Your task to perform on an android device: Search for acer predator on ebay, select the first entry, and add it to the cart. Image 0: 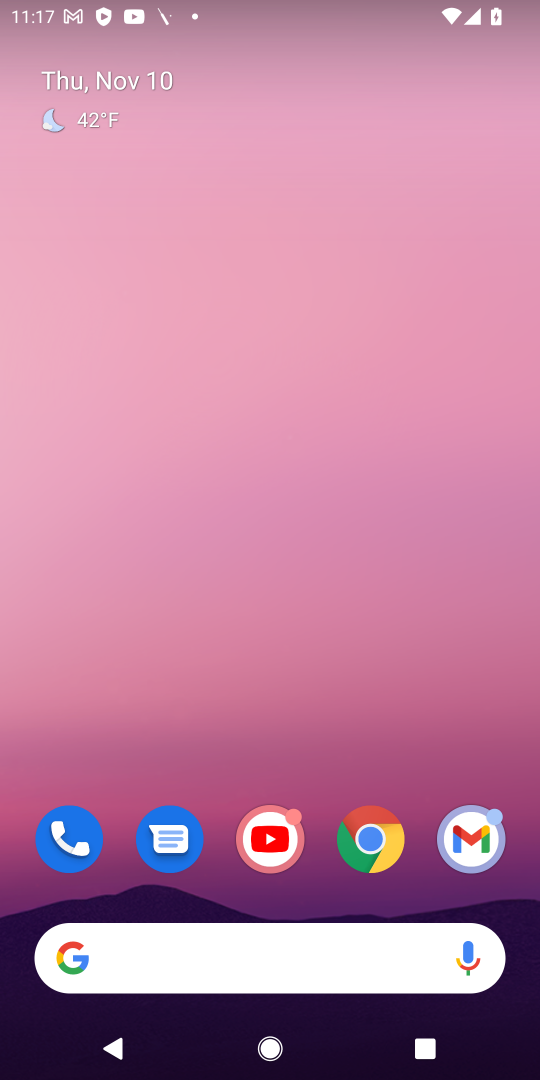
Step 0: click (377, 832)
Your task to perform on an android device: Search for acer predator on ebay, select the first entry, and add it to the cart. Image 1: 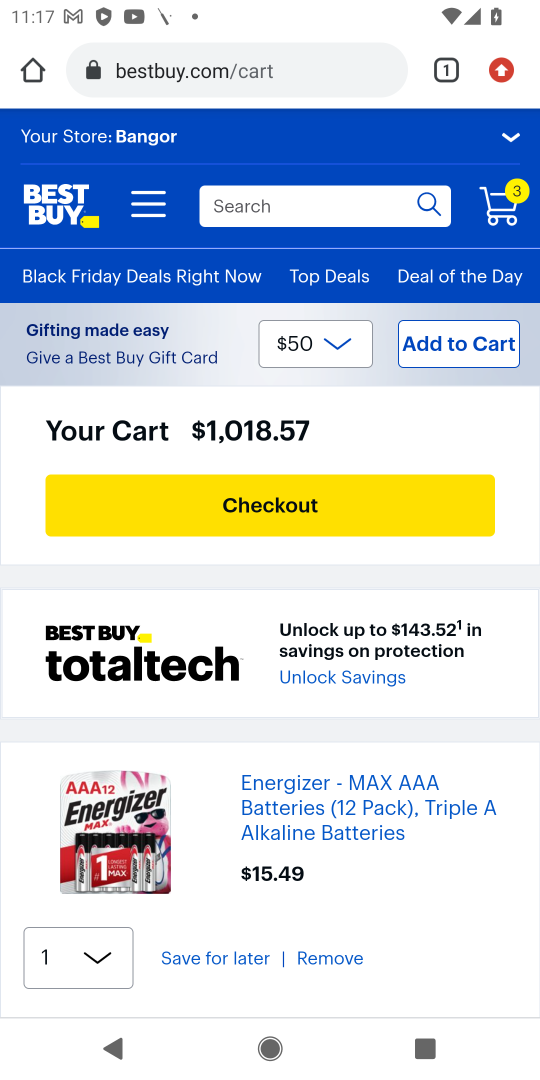
Step 1: click (293, 77)
Your task to perform on an android device: Search for acer predator on ebay, select the first entry, and add it to the cart. Image 2: 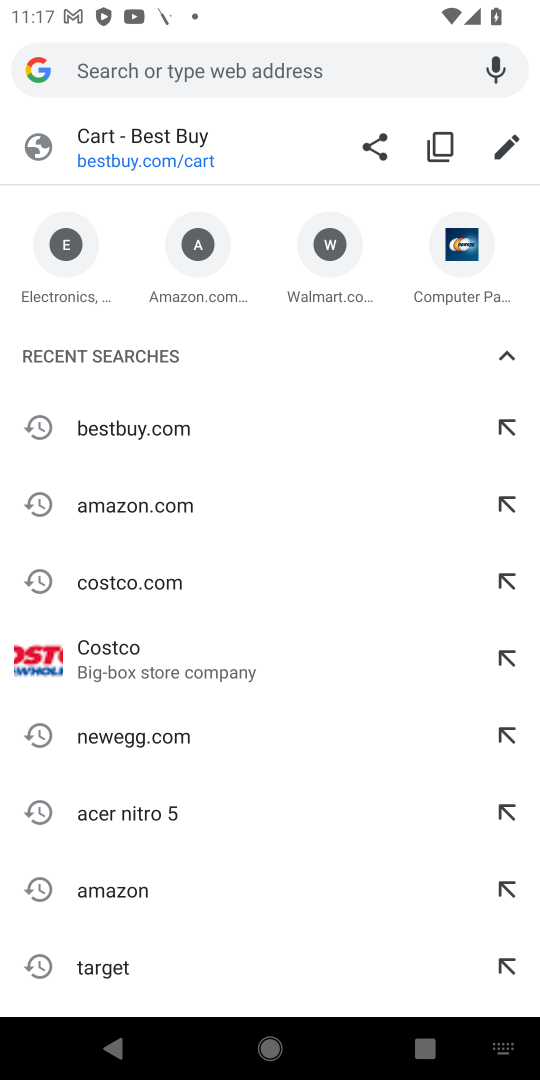
Step 2: drag from (194, 909) to (298, 401)
Your task to perform on an android device: Search for acer predator on ebay, select the first entry, and add it to the cart. Image 3: 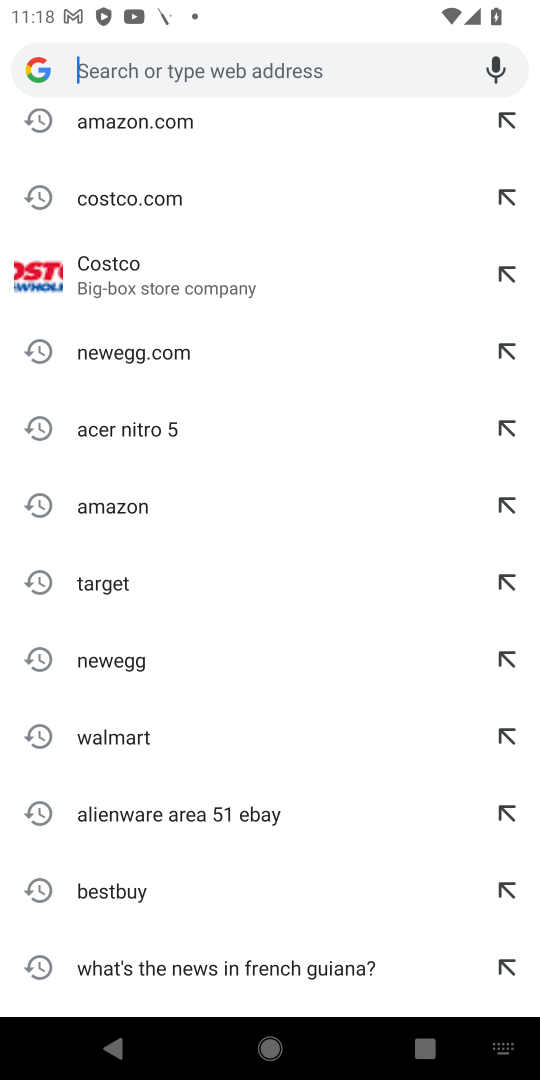
Step 3: drag from (255, 859) to (380, 523)
Your task to perform on an android device: Search for acer predator on ebay, select the first entry, and add it to the cart. Image 4: 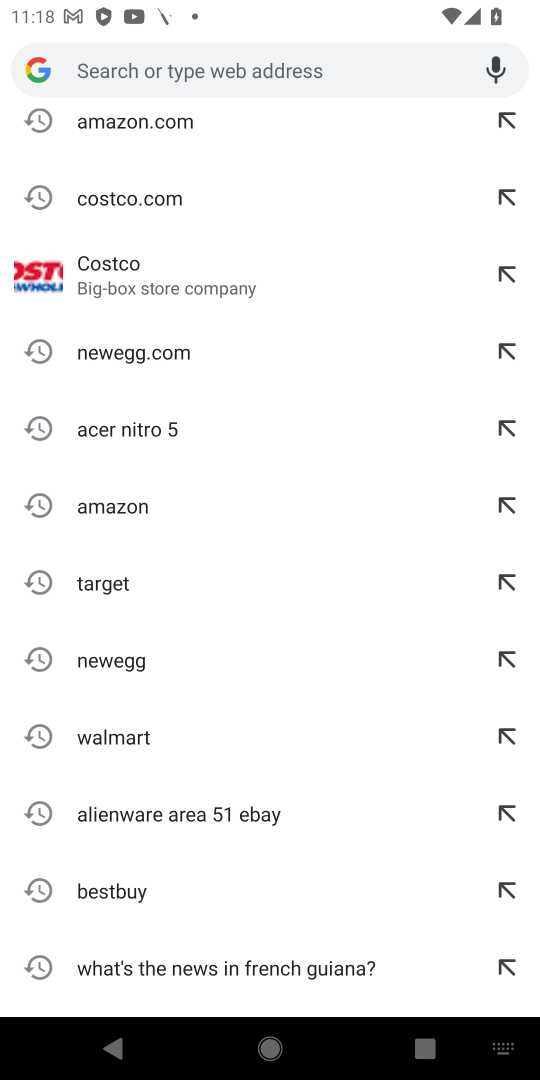
Step 4: drag from (199, 659) to (310, 336)
Your task to perform on an android device: Search for acer predator on ebay, select the first entry, and add it to the cart. Image 5: 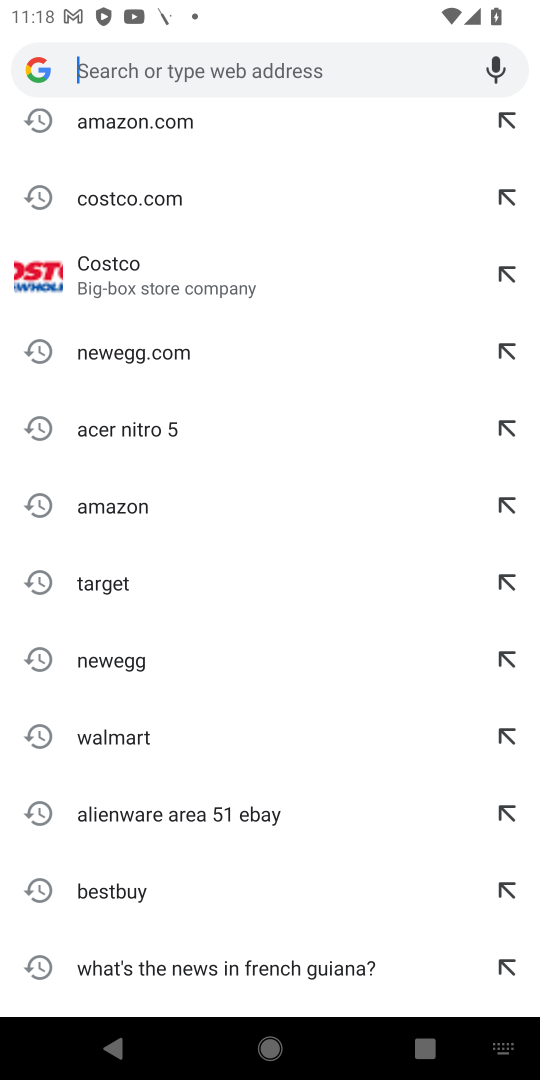
Step 5: type "ebay"
Your task to perform on an android device: Search for acer predator on ebay, select the first entry, and add it to the cart. Image 6: 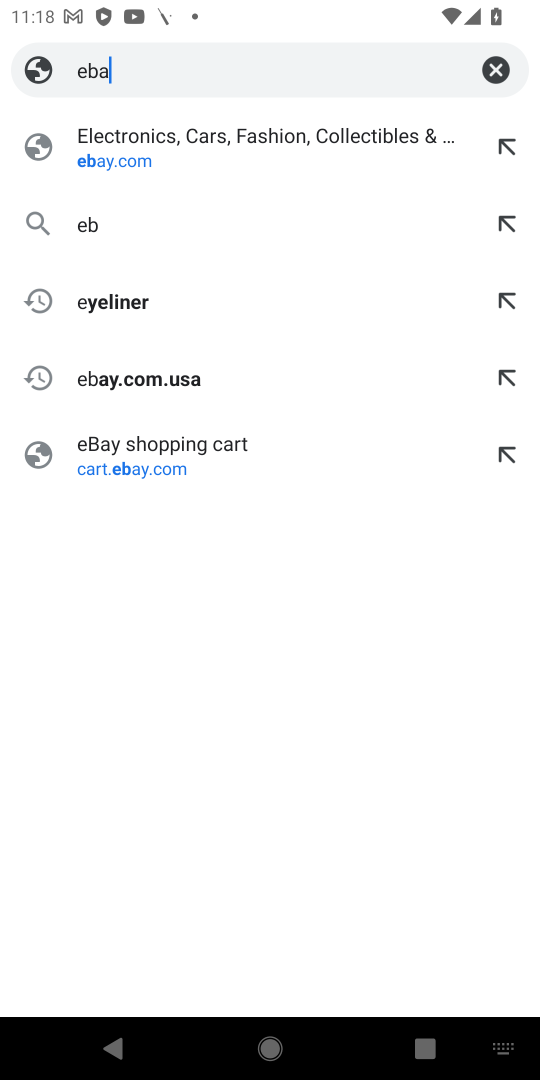
Step 6: press enter
Your task to perform on an android device: Search for acer predator on ebay, select the first entry, and add it to the cart. Image 7: 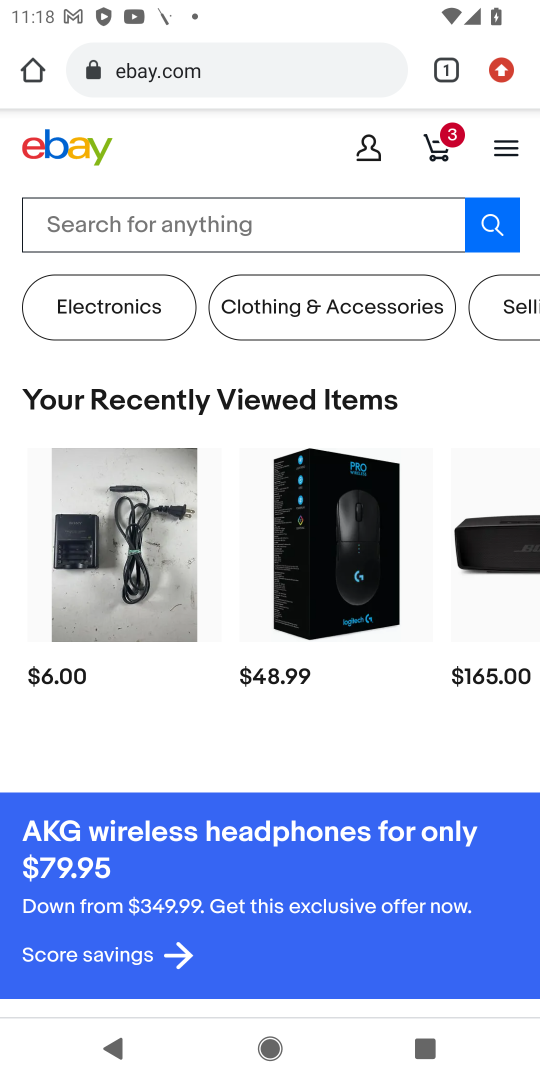
Step 7: click (364, 229)
Your task to perform on an android device: Search for acer predator on ebay, select the first entry, and add it to the cart. Image 8: 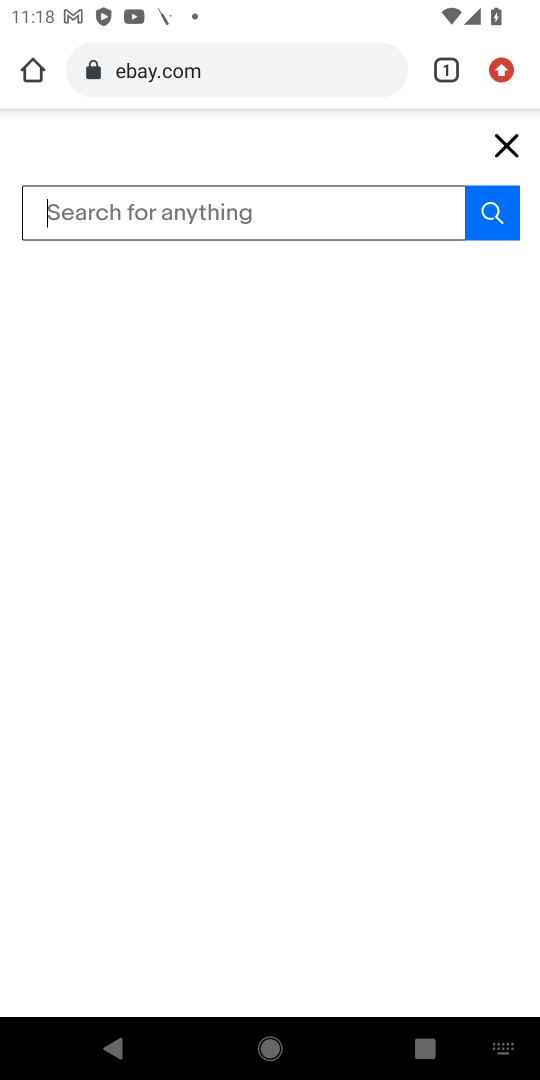
Step 8: type "acer predator"
Your task to perform on an android device: Search for acer predator on ebay, select the first entry, and add it to the cart. Image 9: 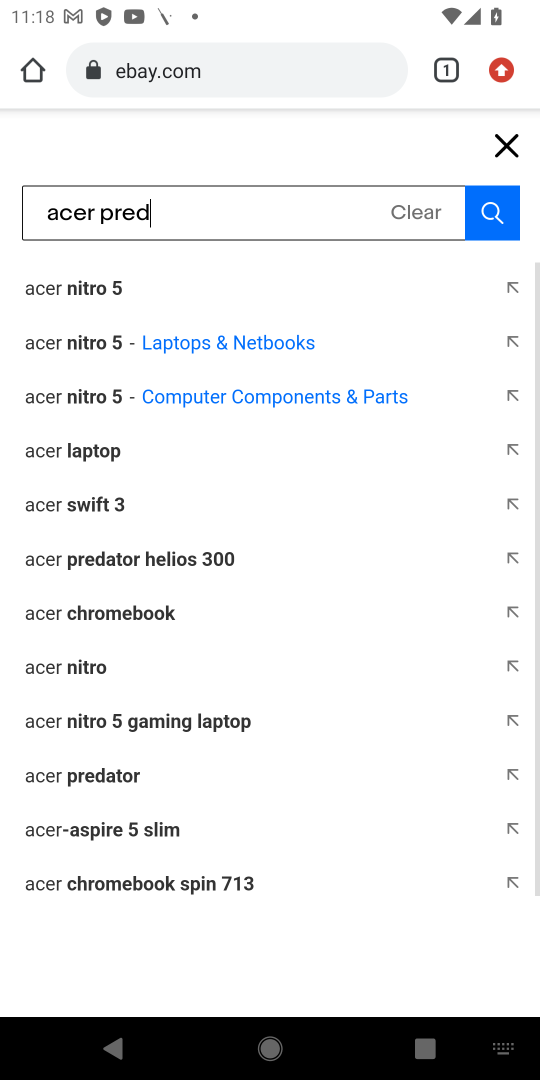
Step 9: press enter
Your task to perform on an android device: Search for acer predator on ebay, select the first entry, and add it to the cart. Image 10: 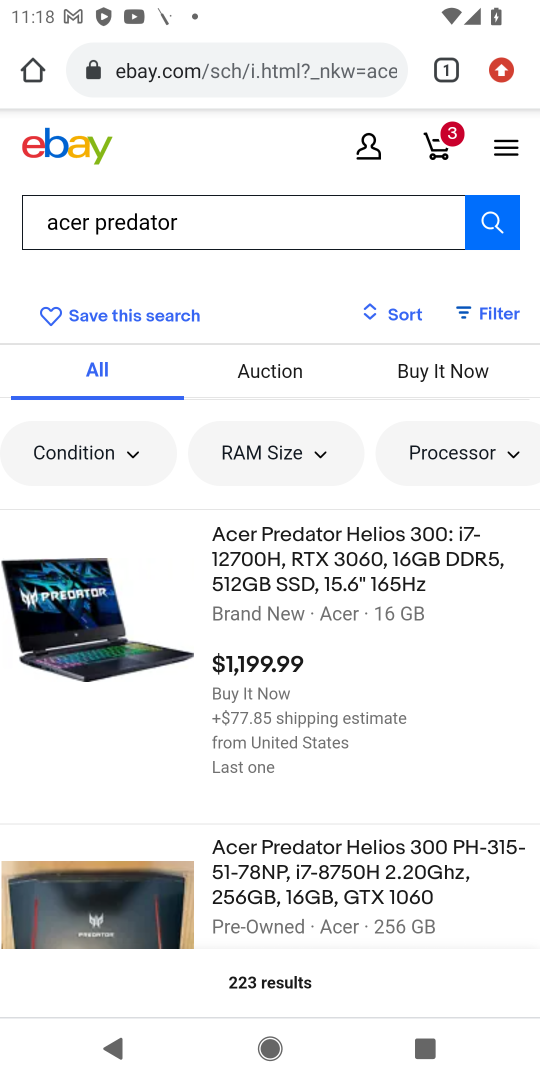
Step 10: click (135, 570)
Your task to perform on an android device: Search for acer predator on ebay, select the first entry, and add it to the cart. Image 11: 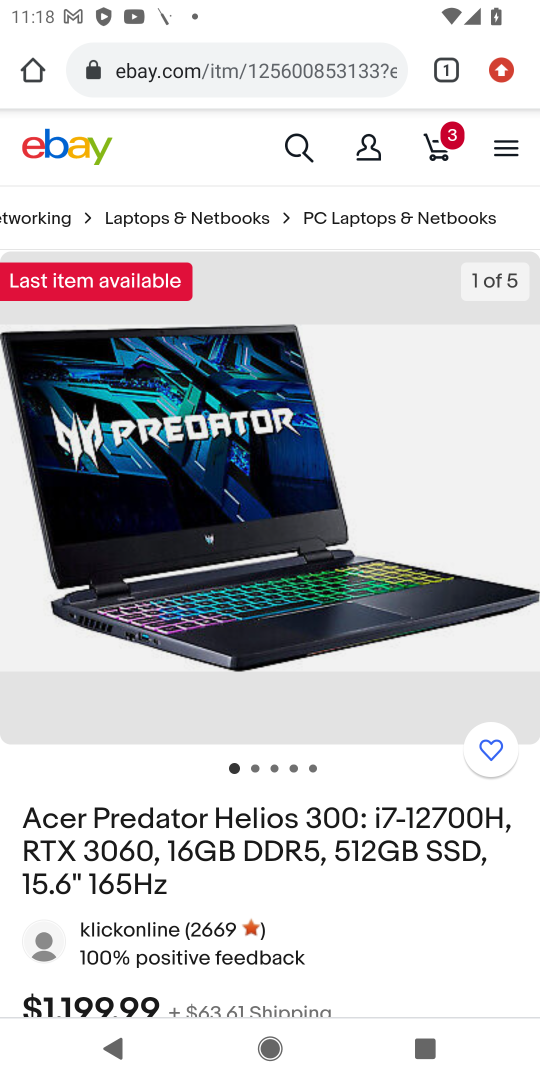
Step 11: drag from (363, 899) to (350, 346)
Your task to perform on an android device: Search for acer predator on ebay, select the first entry, and add it to the cart. Image 12: 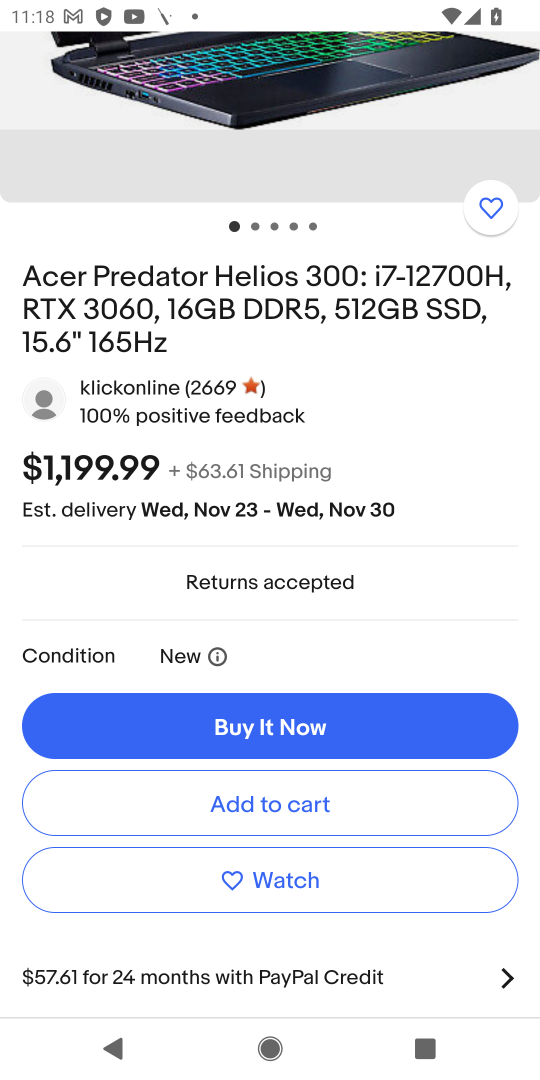
Step 12: click (288, 804)
Your task to perform on an android device: Search for acer predator on ebay, select the first entry, and add it to the cart. Image 13: 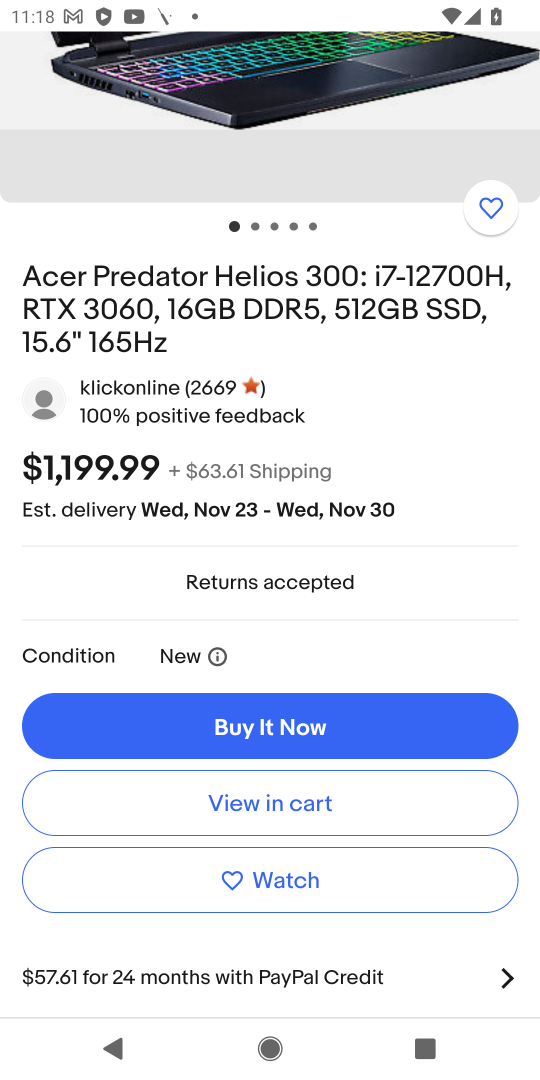
Step 13: click (288, 804)
Your task to perform on an android device: Search for acer predator on ebay, select the first entry, and add it to the cart. Image 14: 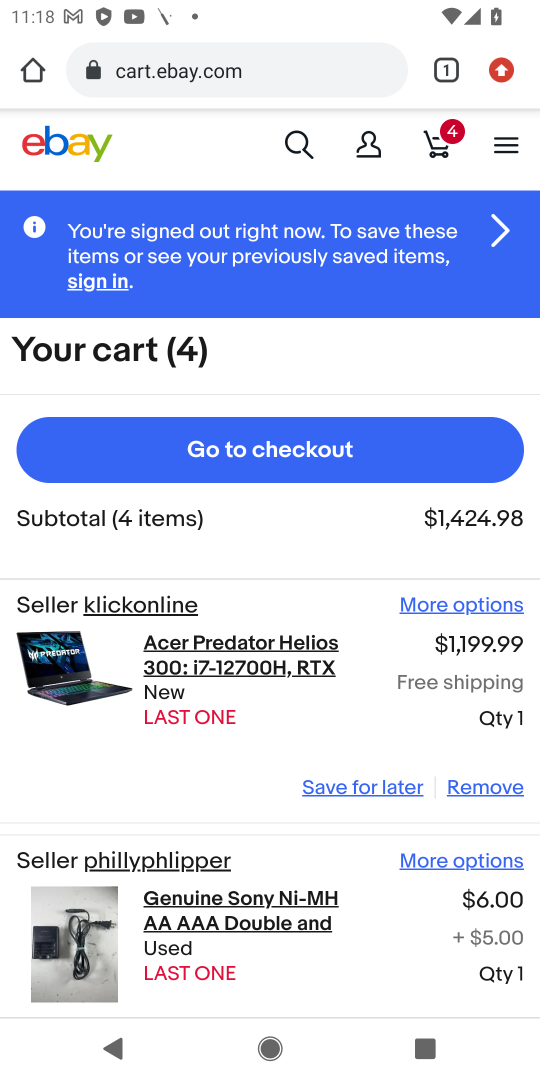
Step 14: task complete